Your task to perform on an android device: turn off sleep mode Image 0: 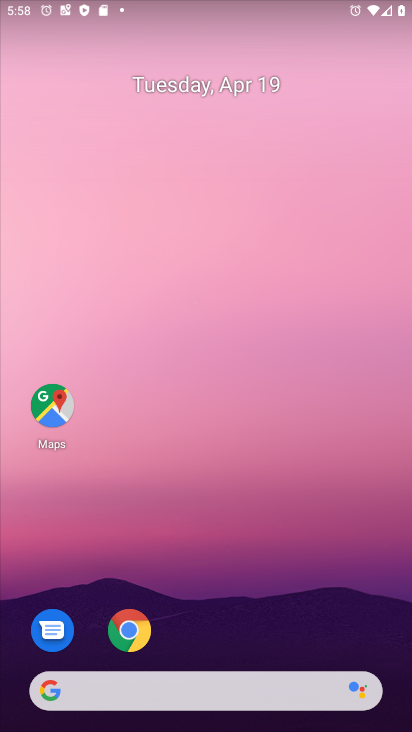
Step 0: drag from (235, 515) to (147, 83)
Your task to perform on an android device: turn off sleep mode Image 1: 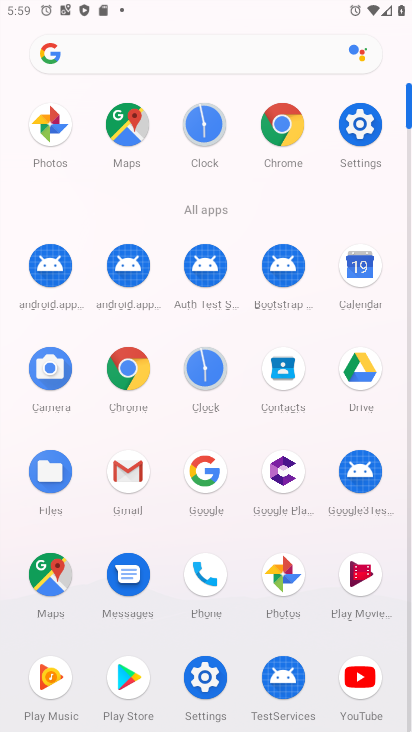
Step 1: click (356, 127)
Your task to perform on an android device: turn off sleep mode Image 2: 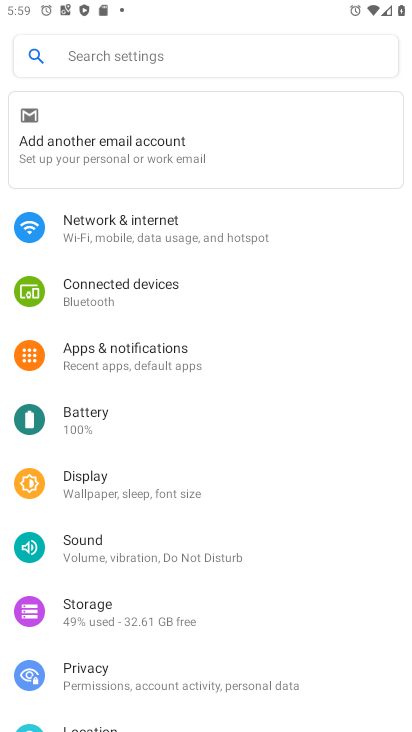
Step 2: drag from (235, 651) to (221, 282)
Your task to perform on an android device: turn off sleep mode Image 3: 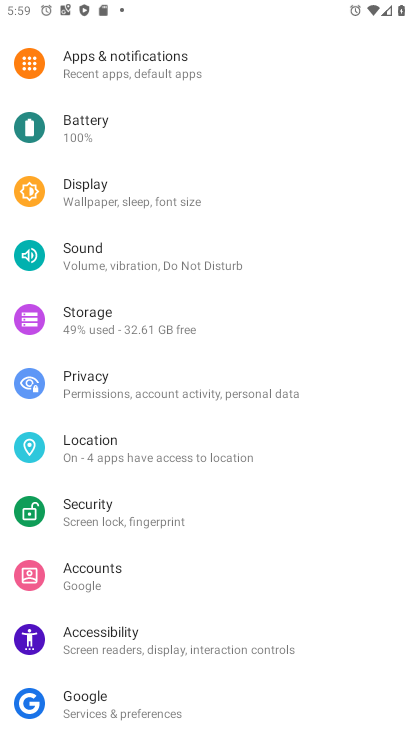
Step 3: click (132, 196)
Your task to perform on an android device: turn off sleep mode Image 4: 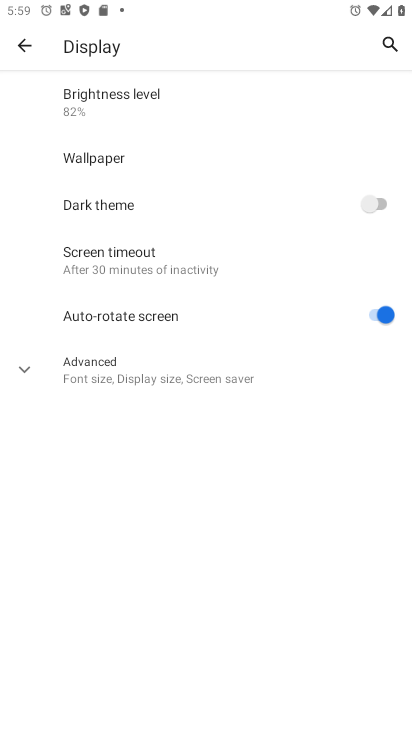
Step 4: task complete